Your task to perform on an android device: toggle notification dots Image 0: 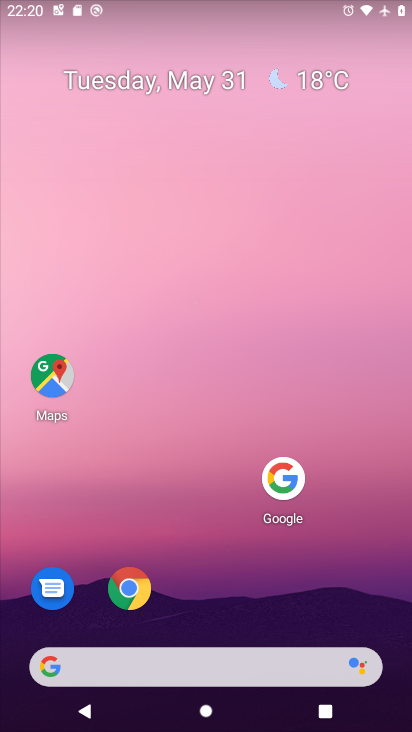
Step 0: press home button
Your task to perform on an android device: toggle notification dots Image 1: 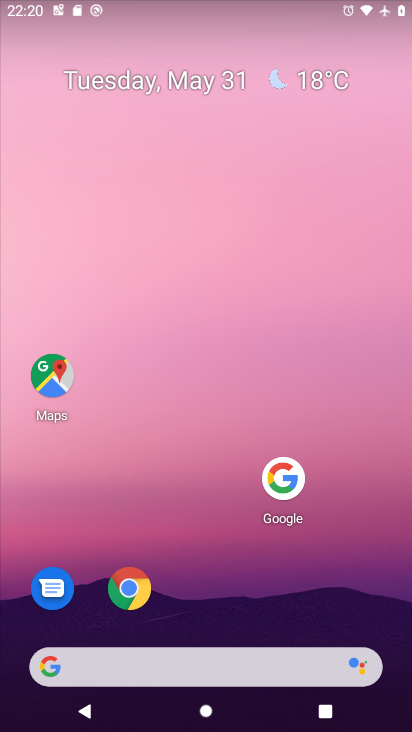
Step 1: drag from (174, 671) to (288, 193)
Your task to perform on an android device: toggle notification dots Image 2: 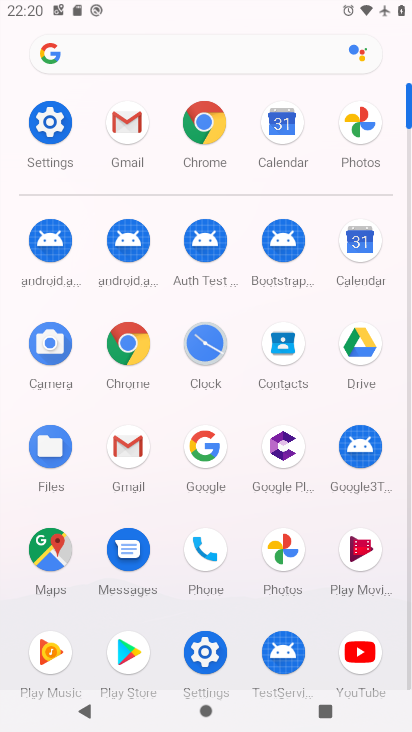
Step 2: click (39, 132)
Your task to perform on an android device: toggle notification dots Image 3: 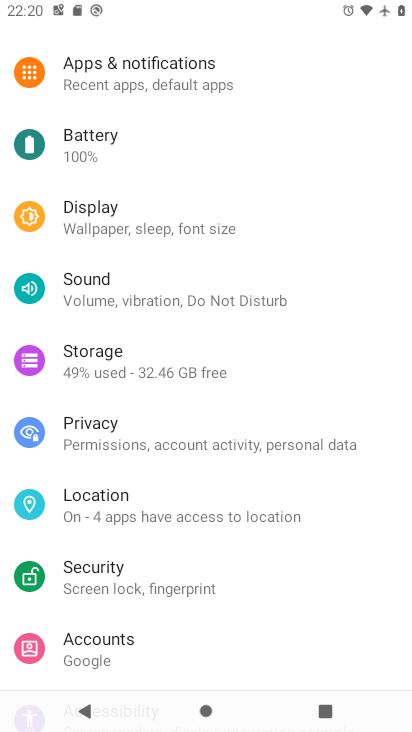
Step 3: click (142, 74)
Your task to perform on an android device: toggle notification dots Image 4: 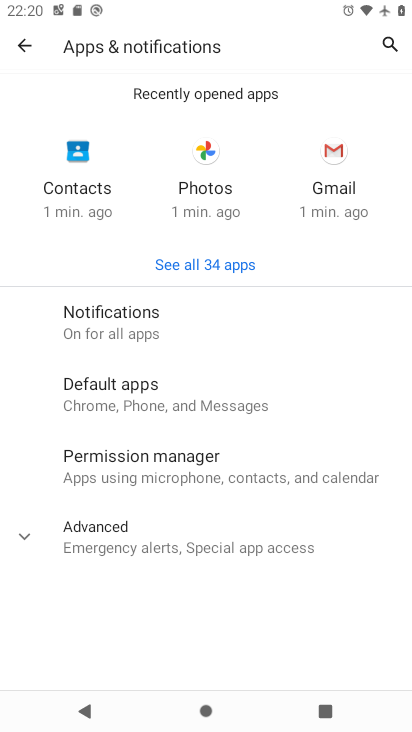
Step 4: click (139, 322)
Your task to perform on an android device: toggle notification dots Image 5: 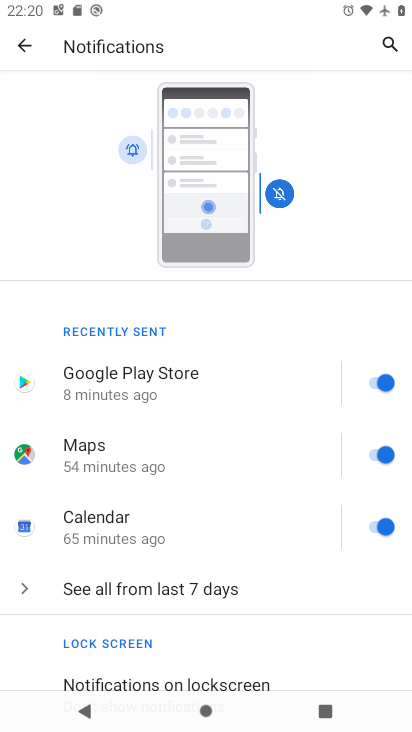
Step 5: drag from (200, 632) to (306, 267)
Your task to perform on an android device: toggle notification dots Image 6: 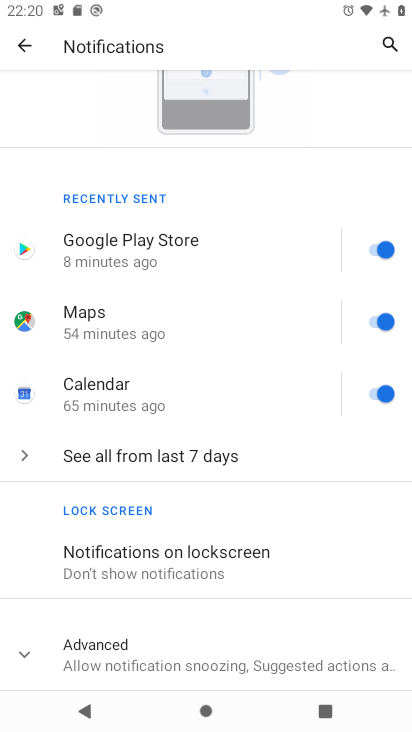
Step 6: click (146, 654)
Your task to perform on an android device: toggle notification dots Image 7: 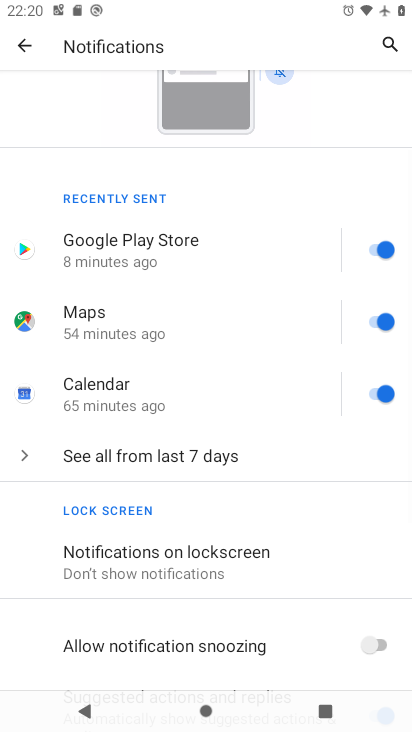
Step 7: drag from (161, 651) to (298, 222)
Your task to perform on an android device: toggle notification dots Image 8: 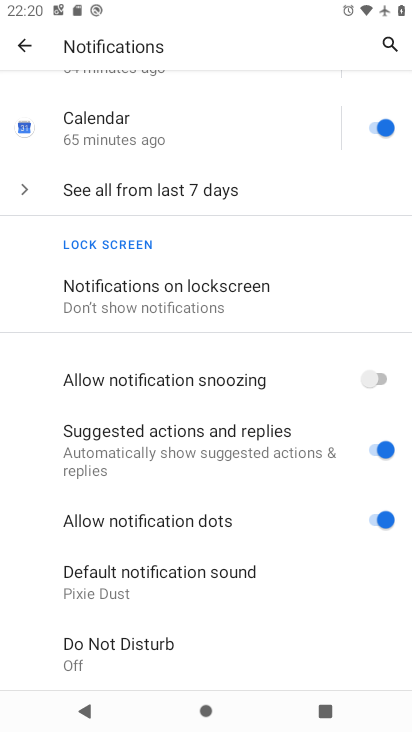
Step 8: click (377, 520)
Your task to perform on an android device: toggle notification dots Image 9: 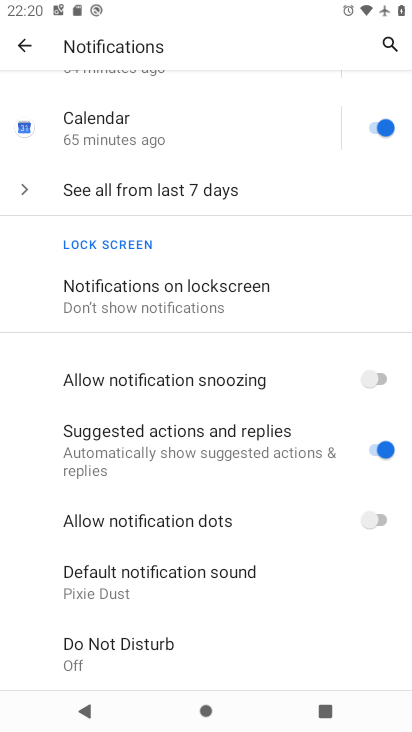
Step 9: task complete